Your task to perform on an android device: Open my contact list Image 0: 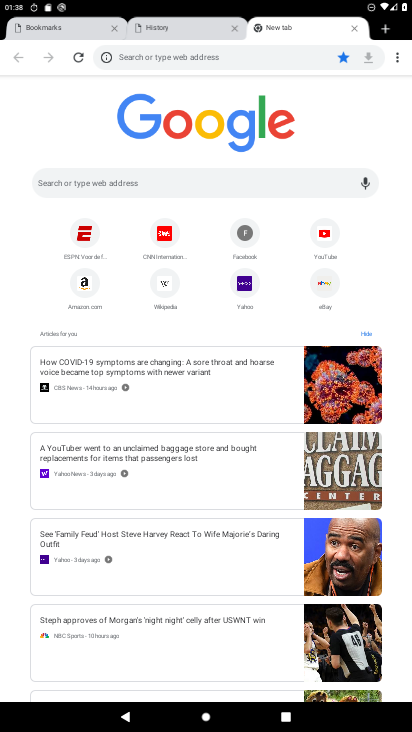
Step 0: press home button
Your task to perform on an android device: Open my contact list Image 1: 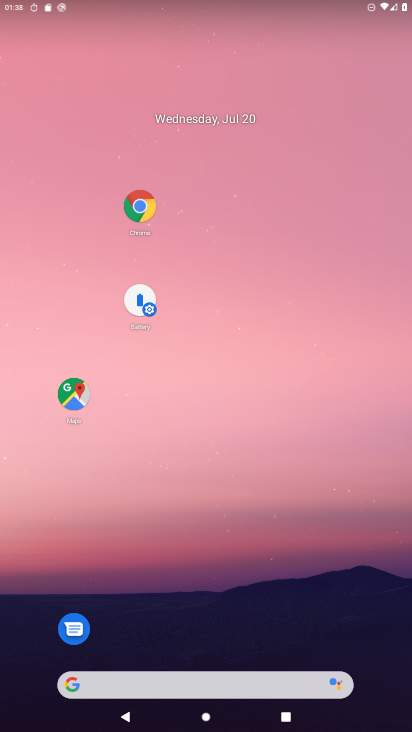
Step 1: drag from (200, 635) to (313, 21)
Your task to perform on an android device: Open my contact list Image 2: 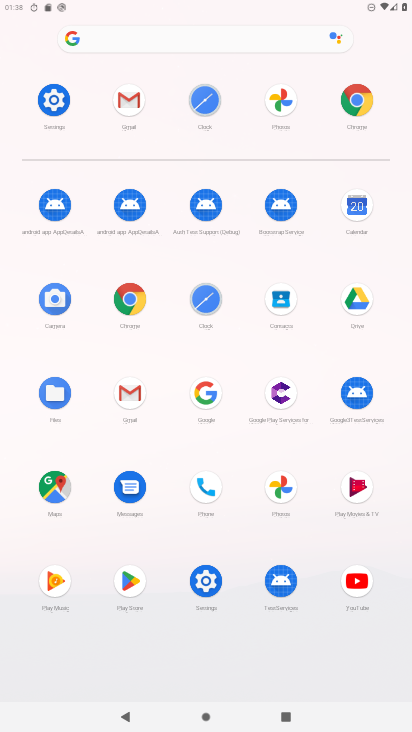
Step 2: click (279, 297)
Your task to perform on an android device: Open my contact list Image 3: 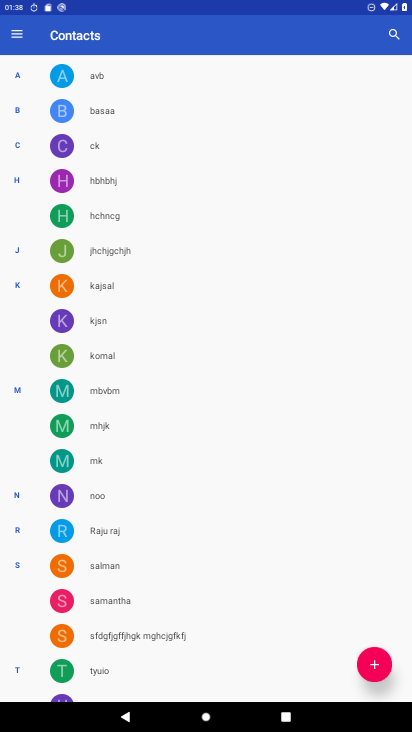
Step 3: task complete